Your task to perform on an android device: turn on bluetooth scan Image 0: 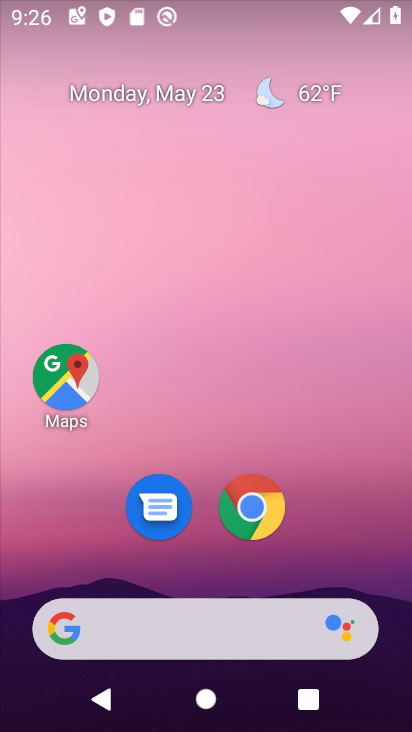
Step 0: drag from (321, 544) to (258, 88)
Your task to perform on an android device: turn on bluetooth scan Image 1: 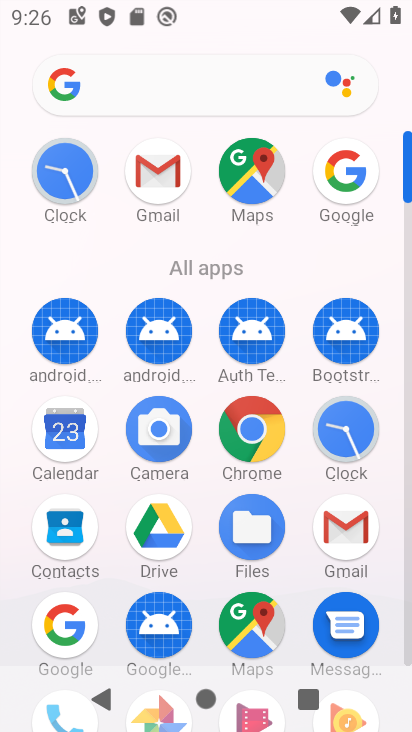
Step 1: drag from (201, 506) to (204, 284)
Your task to perform on an android device: turn on bluetooth scan Image 2: 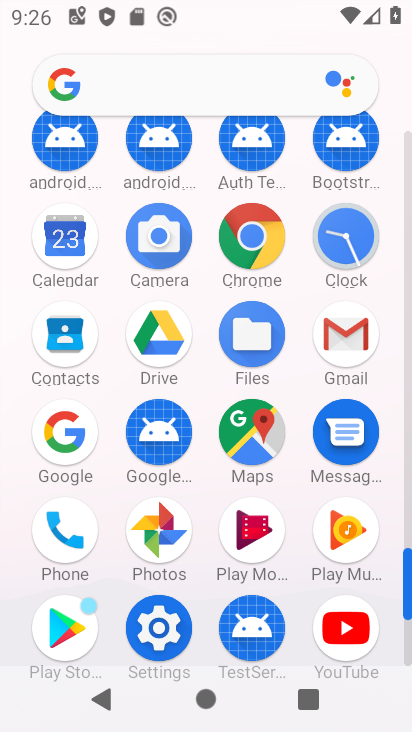
Step 2: click (161, 626)
Your task to perform on an android device: turn on bluetooth scan Image 3: 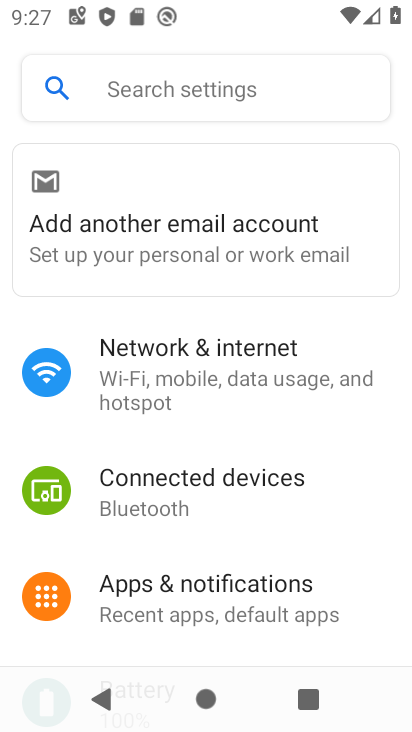
Step 3: drag from (215, 525) to (249, 419)
Your task to perform on an android device: turn on bluetooth scan Image 4: 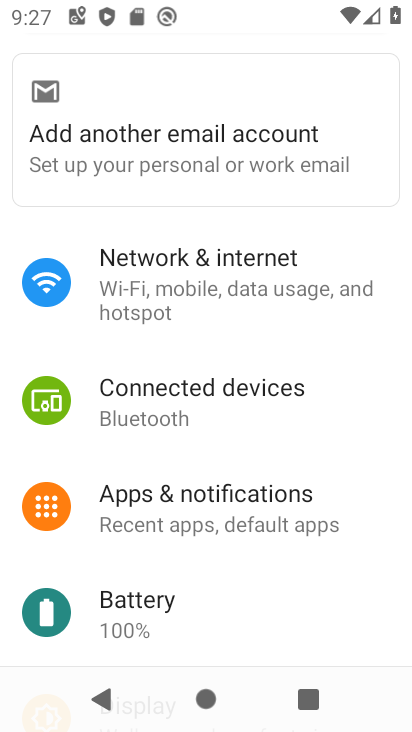
Step 4: drag from (194, 565) to (251, 467)
Your task to perform on an android device: turn on bluetooth scan Image 5: 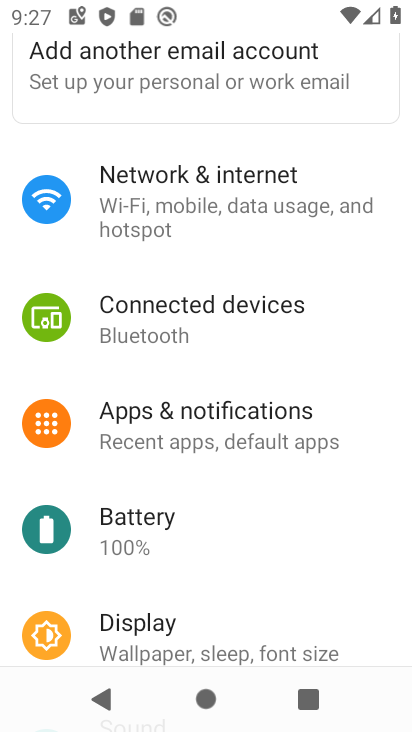
Step 5: drag from (166, 561) to (221, 474)
Your task to perform on an android device: turn on bluetooth scan Image 6: 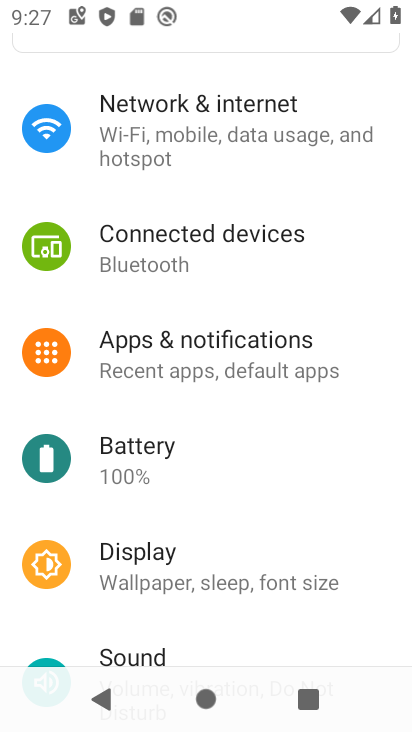
Step 6: drag from (158, 602) to (239, 499)
Your task to perform on an android device: turn on bluetooth scan Image 7: 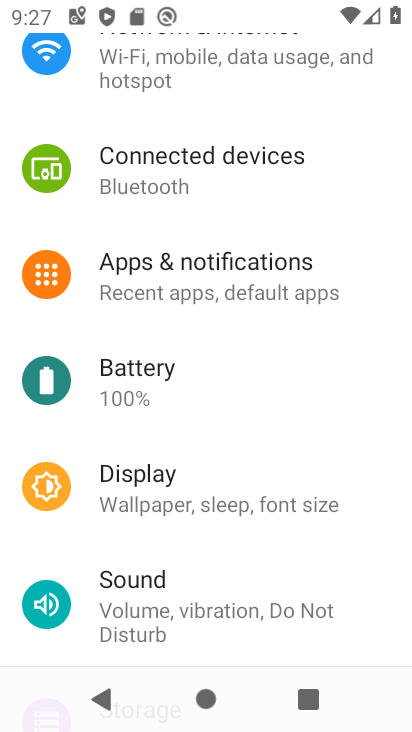
Step 7: drag from (198, 567) to (254, 462)
Your task to perform on an android device: turn on bluetooth scan Image 8: 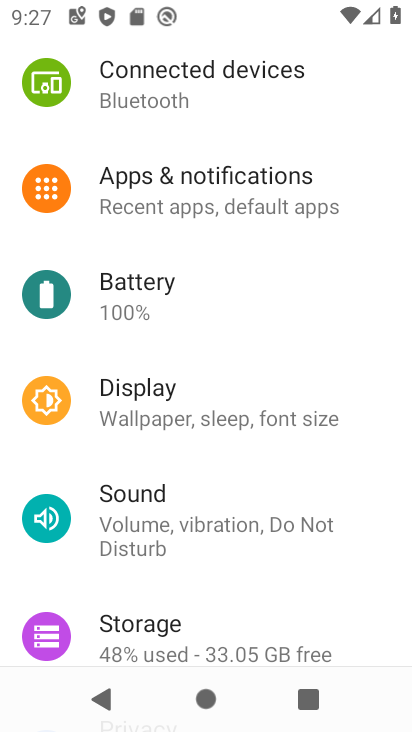
Step 8: drag from (171, 578) to (269, 455)
Your task to perform on an android device: turn on bluetooth scan Image 9: 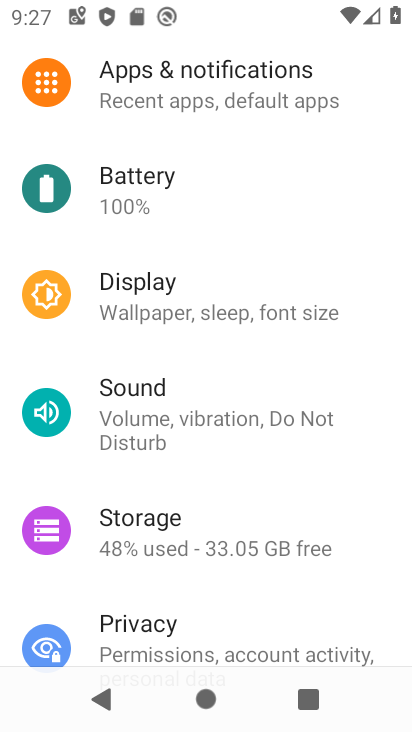
Step 9: drag from (155, 586) to (221, 483)
Your task to perform on an android device: turn on bluetooth scan Image 10: 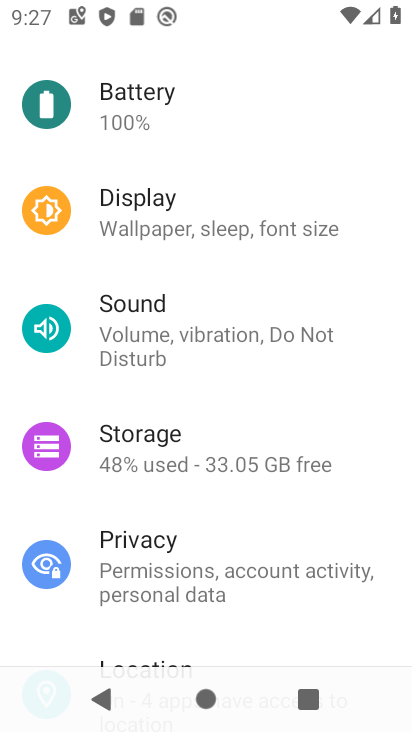
Step 10: drag from (146, 616) to (235, 487)
Your task to perform on an android device: turn on bluetooth scan Image 11: 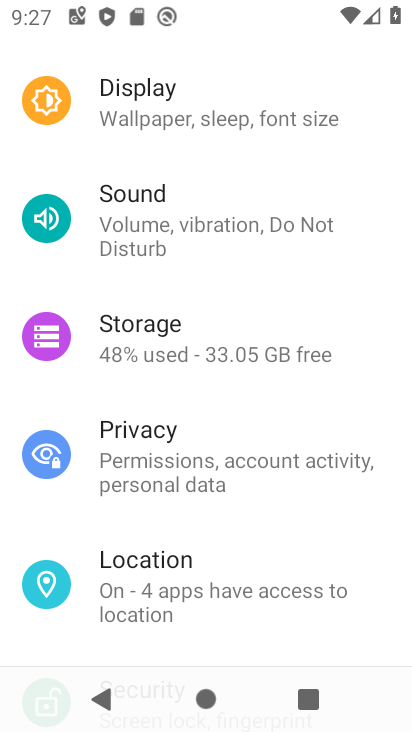
Step 11: click (169, 575)
Your task to perform on an android device: turn on bluetooth scan Image 12: 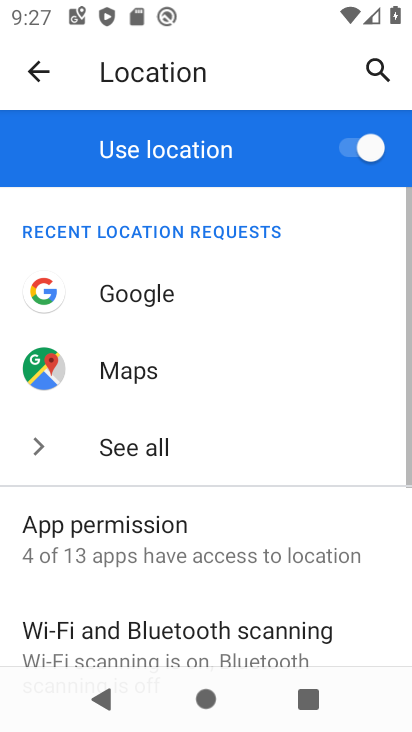
Step 12: drag from (235, 586) to (293, 468)
Your task to perform on an android device: turn on bluetooth scan Image 13: 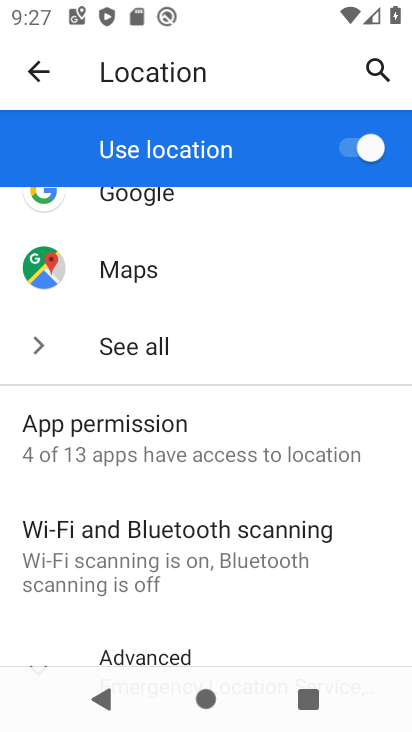
Step 13: click (290, 523)
Your task to perform on an android device: turn on bluetooth scan Image 14: 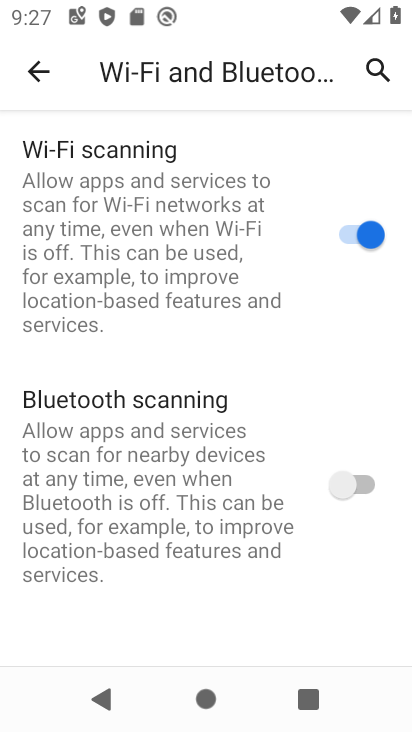
Step 14: click (357, 482)
Your task to perform on an android device: turn on bluetooth scan Image 15: 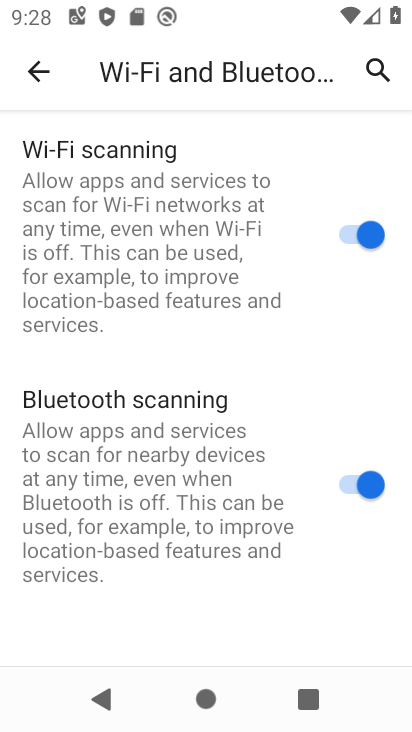
Step 15: task complete